Your task to perform on an android device: What's the weather today? Image 0: 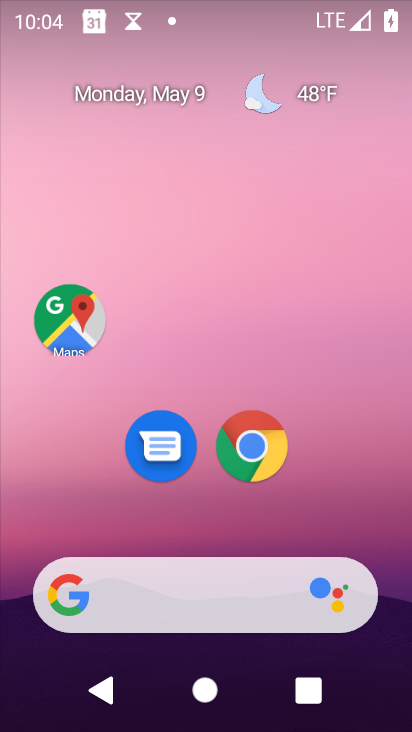
Step 0: click (311, 101)
Your task to perform on an android device: What's the weather today? Image 1: 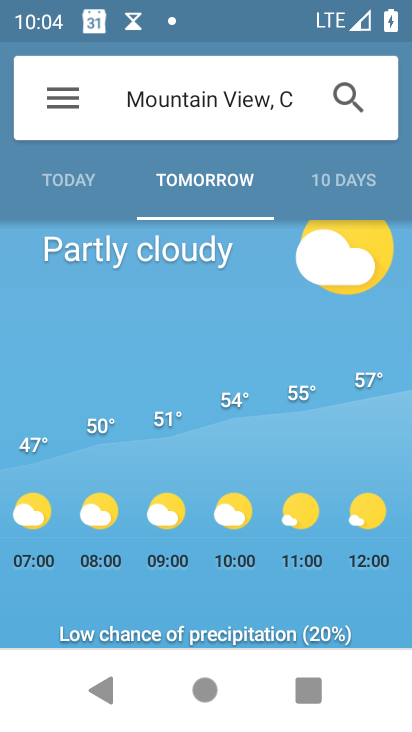
Step 1: click (68, 180)
Your task to perform on an android device: What's the weather today? Image 2: 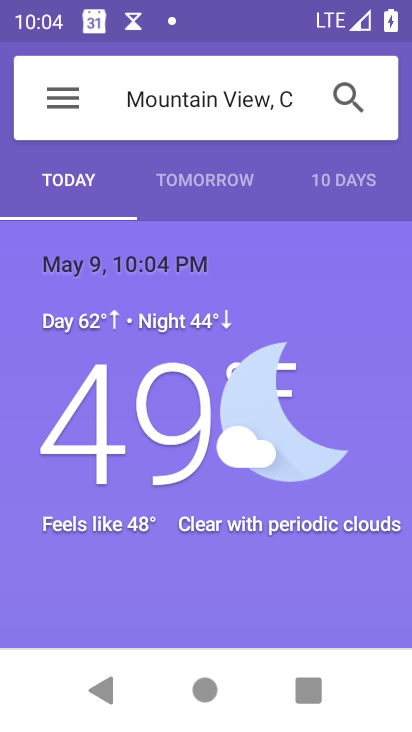
Step 2: task complete